Your task to perform on an android device: Go to eBay Image 0: 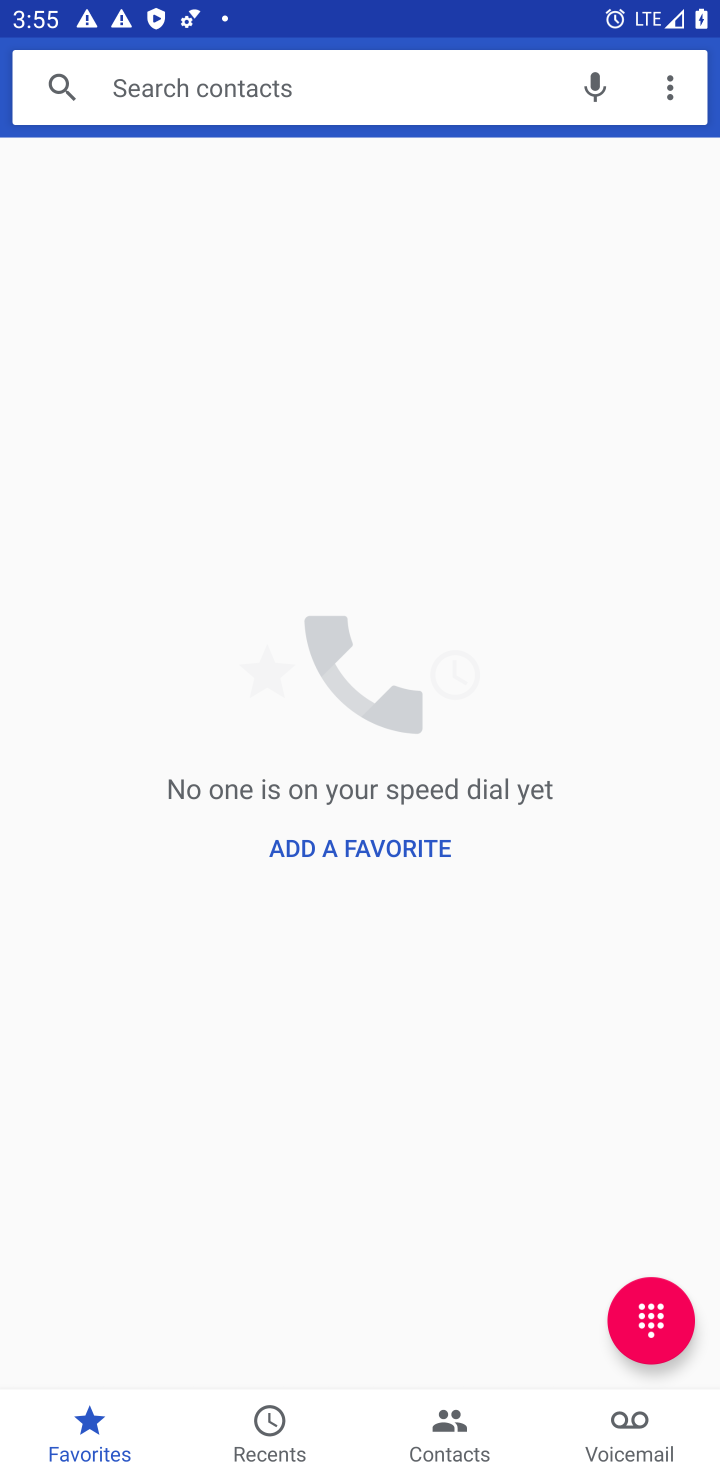
Step 0: click (135, 79)
Your task to perform on an android device: Go to eBay Image 1: 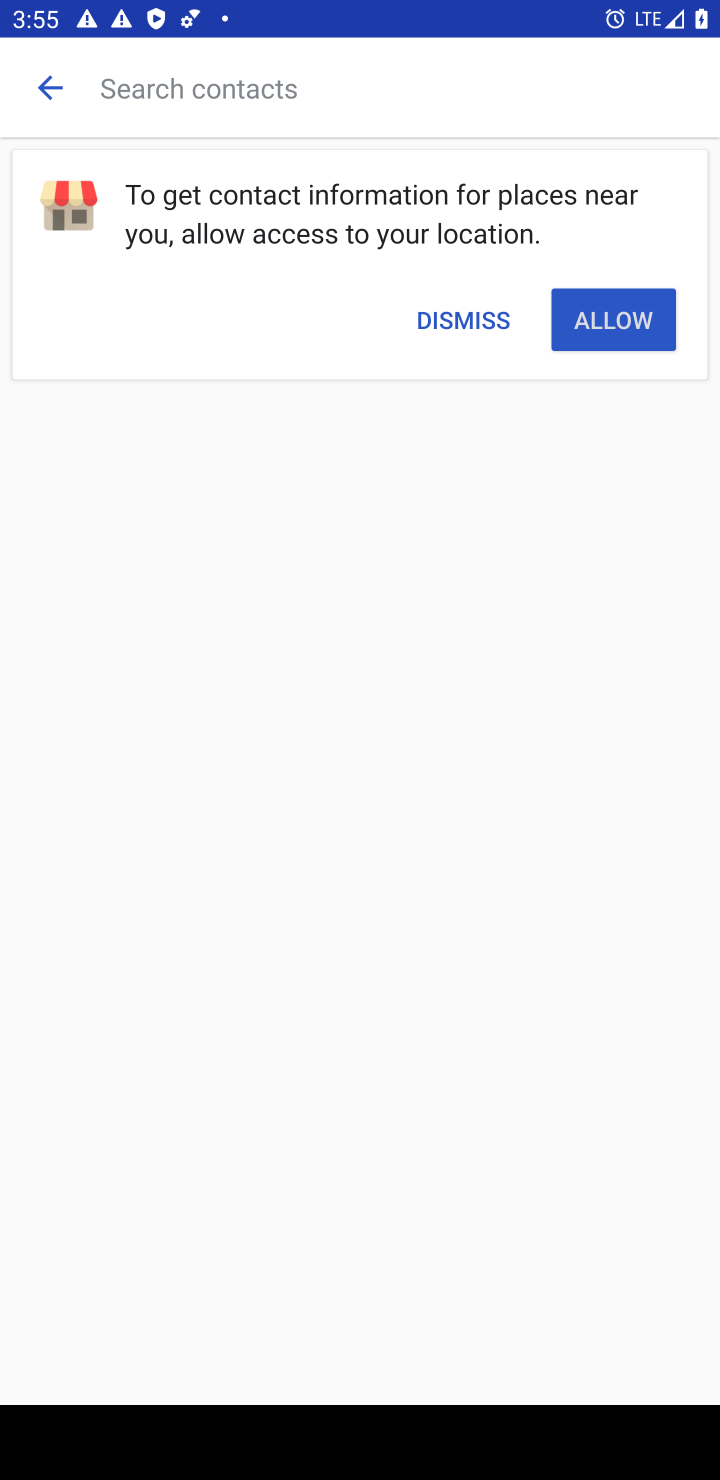
Step 1: press home button
Your task to perform on an android device: Go to eBay Image 2: 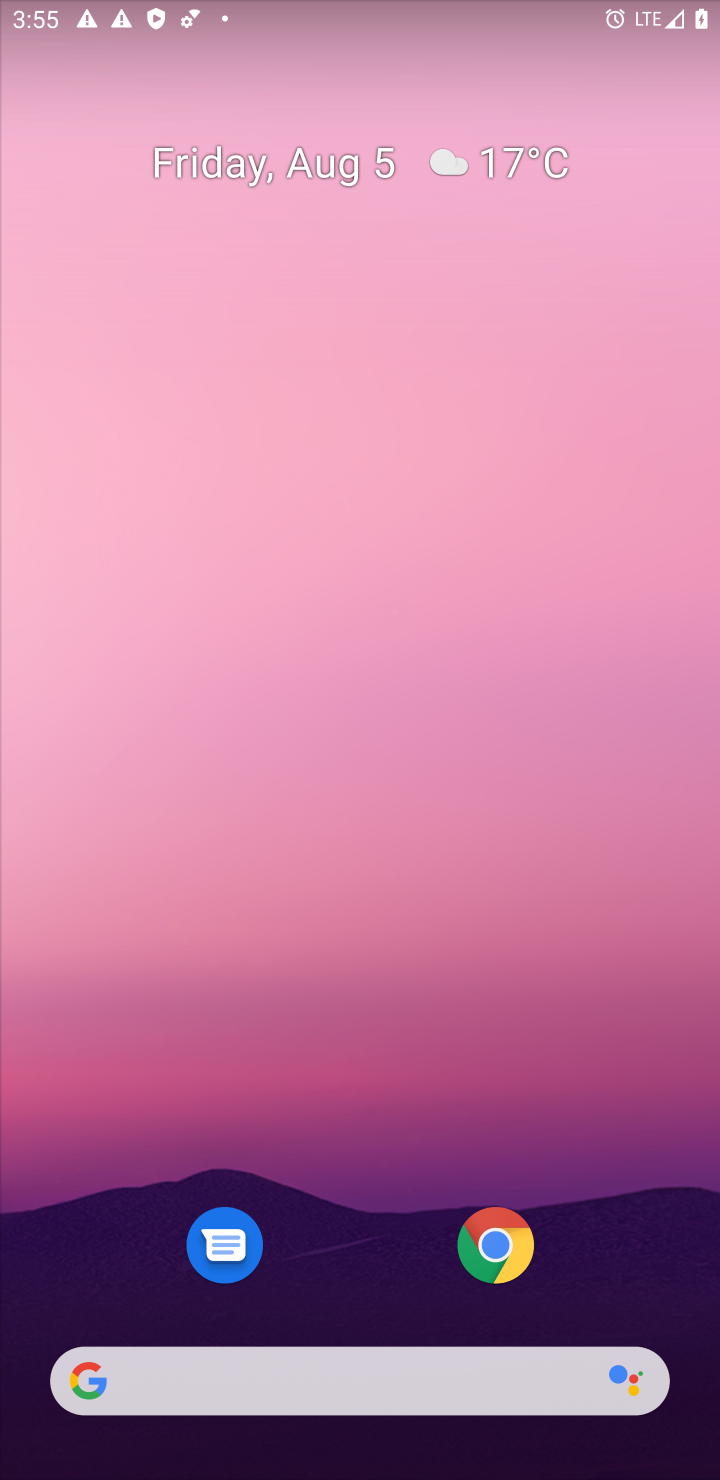
Step 2: click (140, 1400)
Your task to perform on an android device: Go to eBay Image 3: 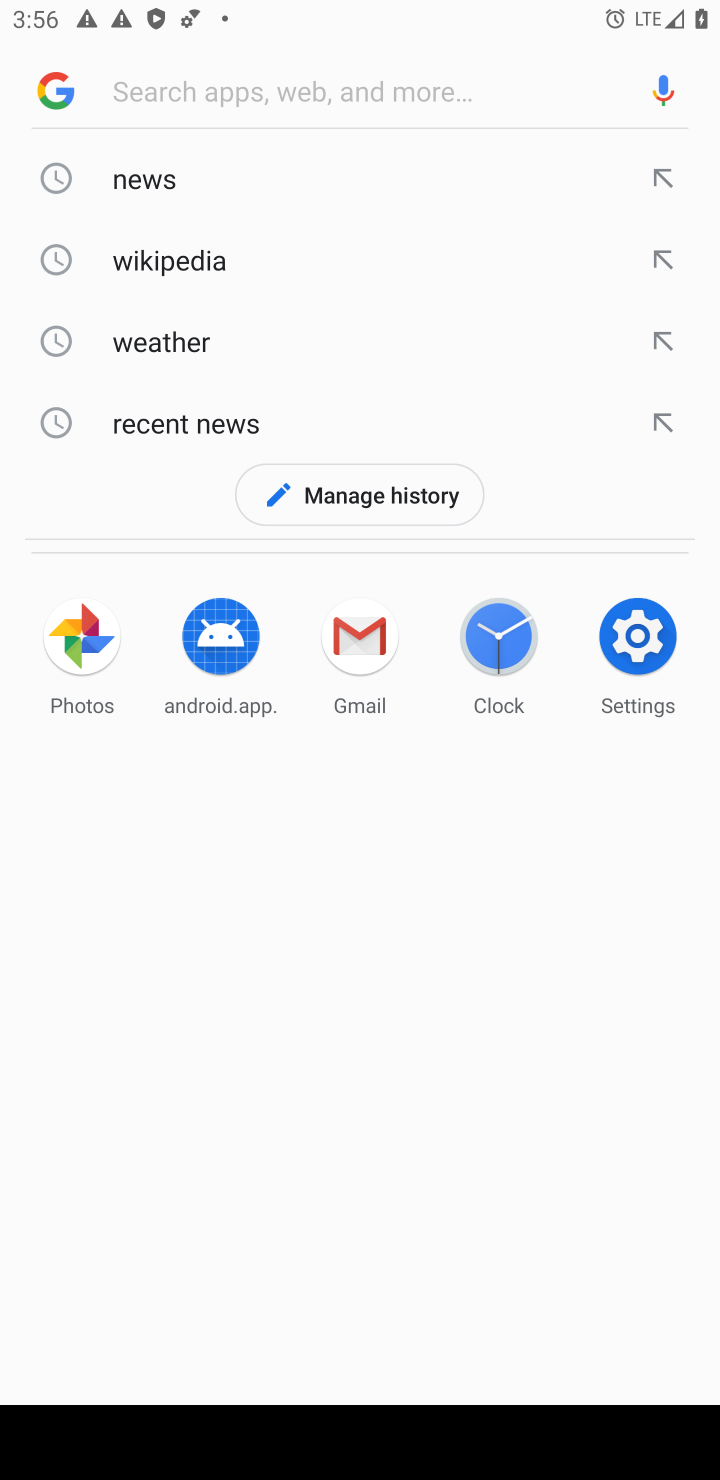
Step 3: type "eBay"
Your task to perform on an android device: Go to eBay Image 4: 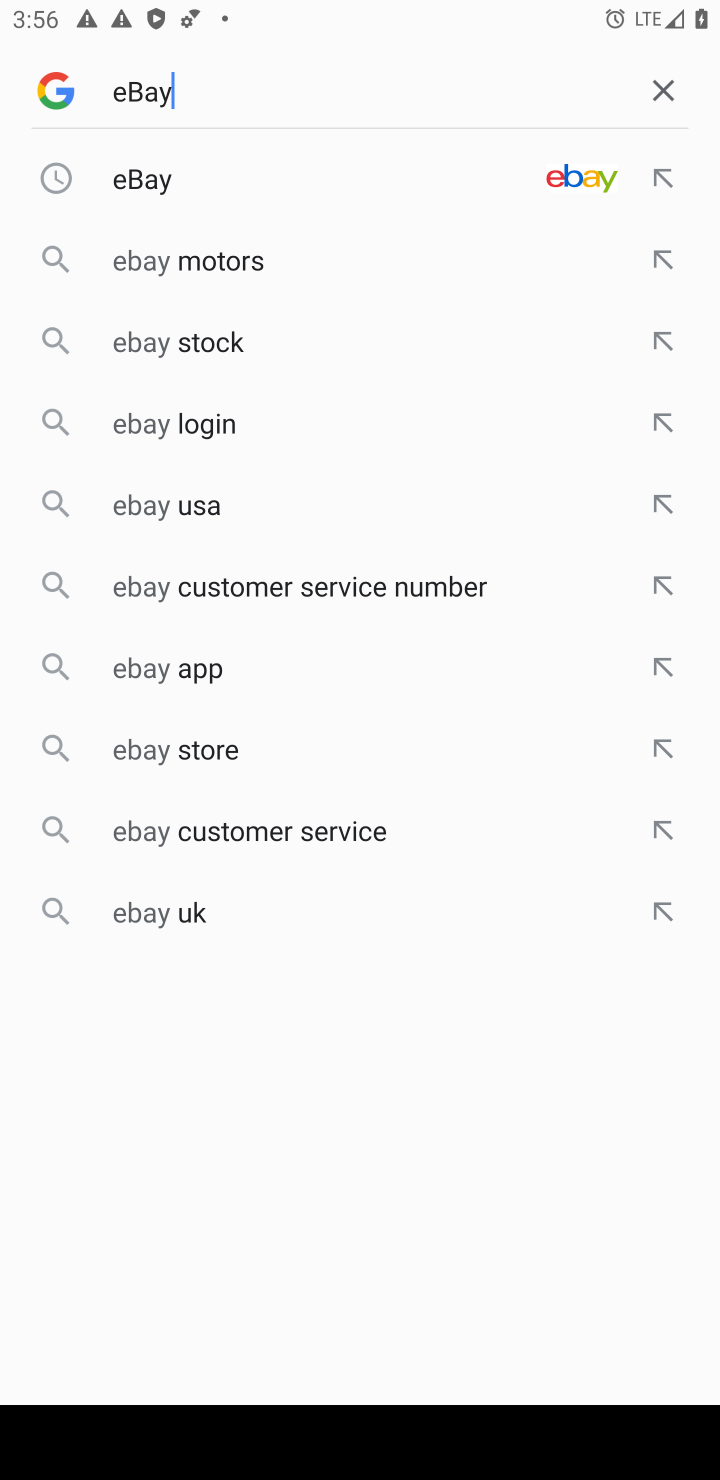
Step 4: click (171, 163)
Your task to perform on an android device: Go to eBay Image 5: 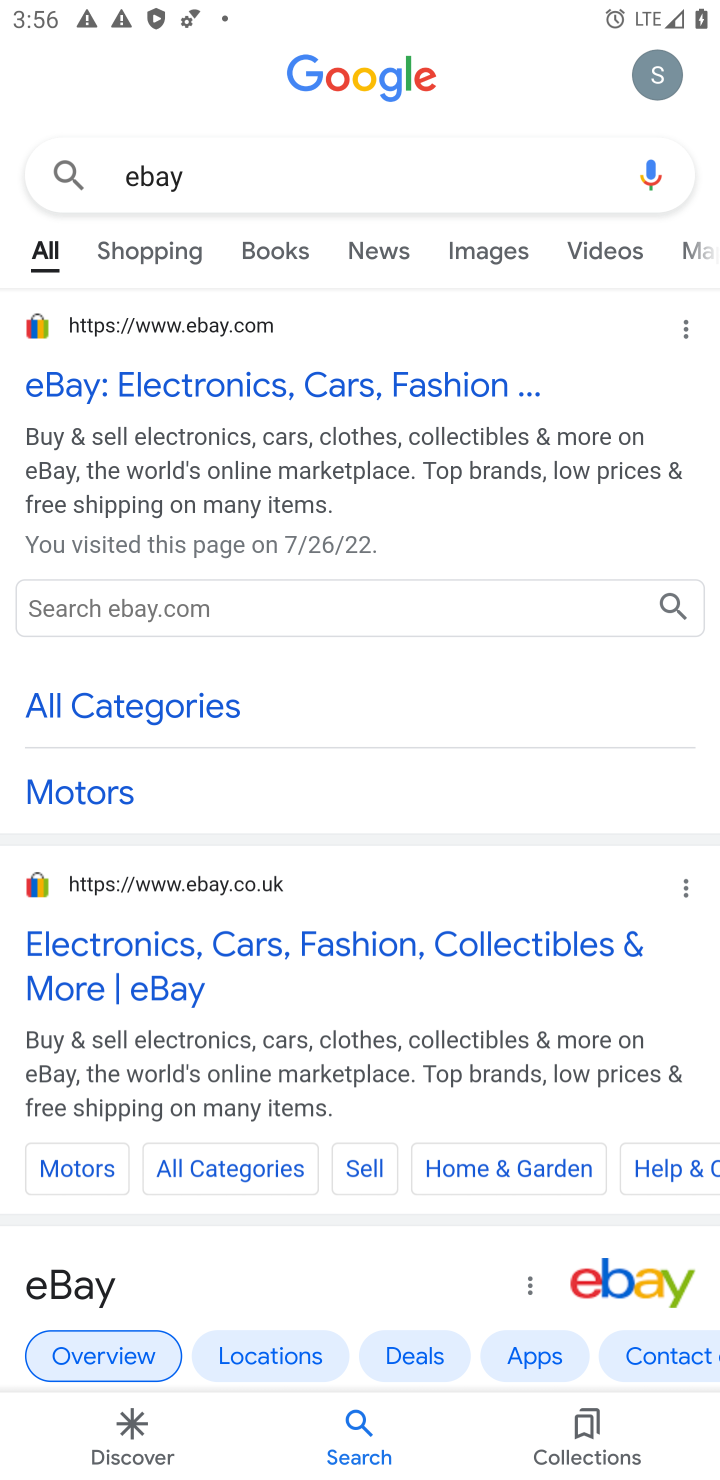
Step 5: task complete